Your task to perform on an android device: Open Google Maps and go to "Timeline" Image 0: 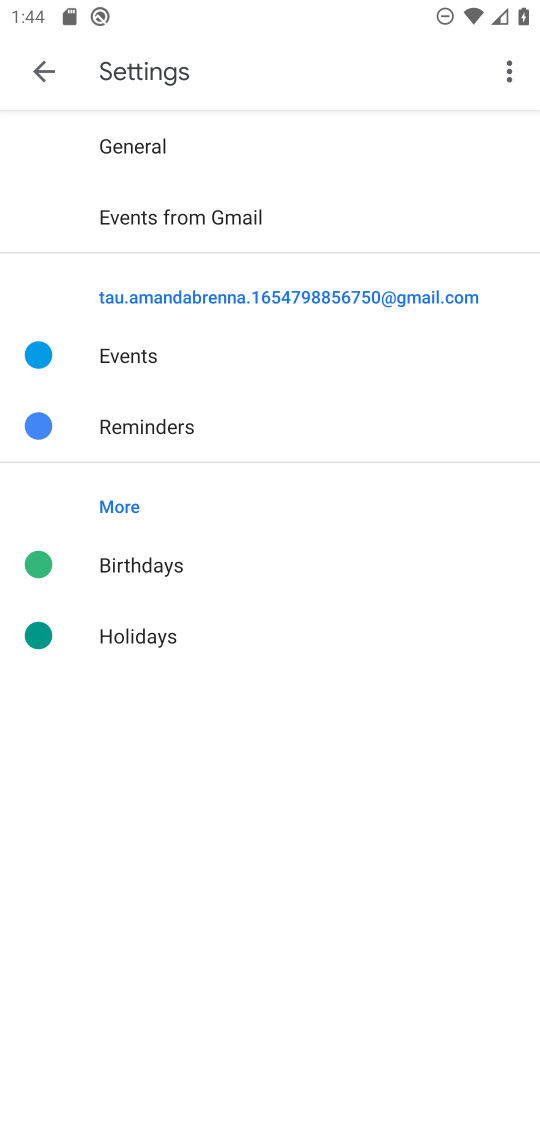
Step 0: press home button
Your task to perform on an android device: Open Google Maps and go to "Timeline" Image 1: 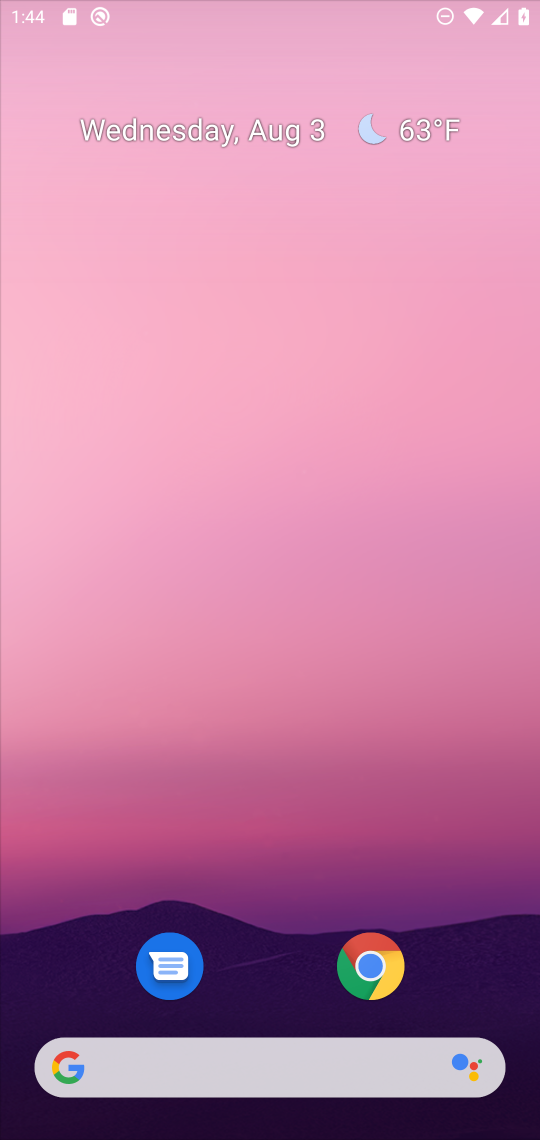
Step 1: press home button
Your task to perform on an android device: Open Google Maps and go to "Timeline" Image 2: 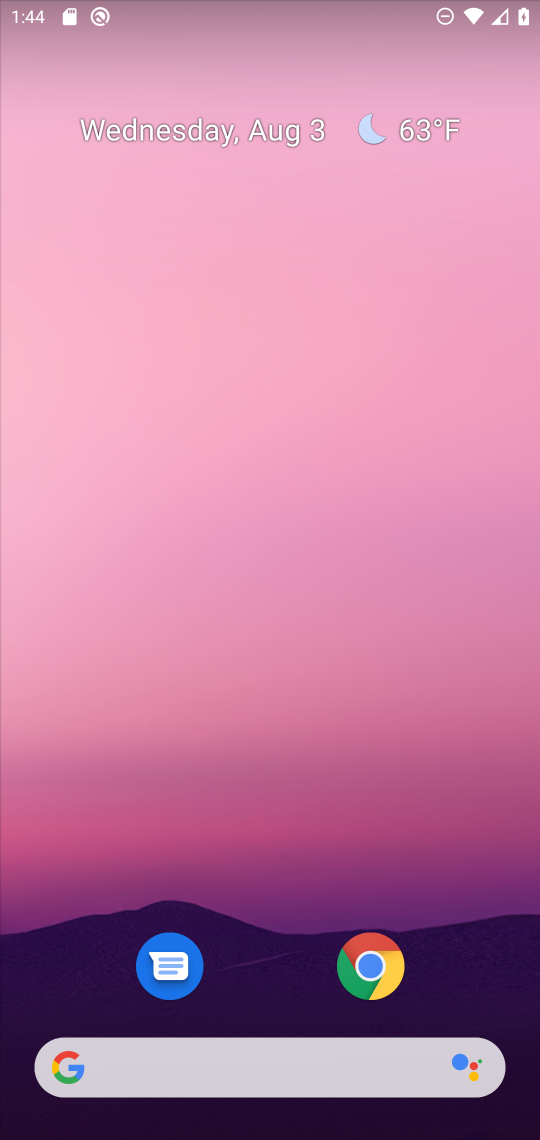
Step 2: drag from (220, 952) to (220, 346)
Your task to perform on an android device: Open Google Maps and go to "Timeline" Image 3: 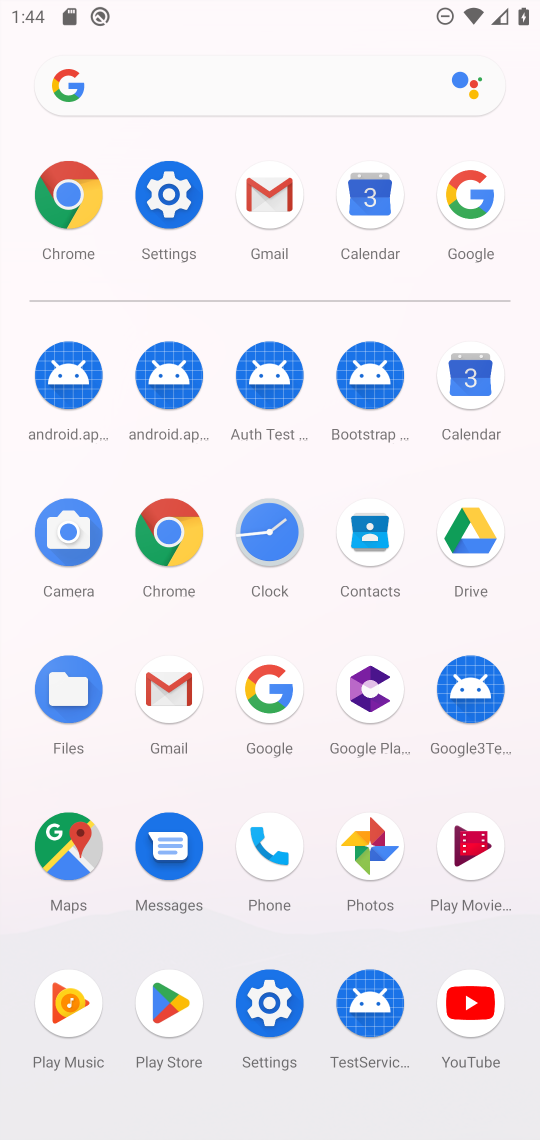
Step 3: click (67, 824)
Your task to perform on an android device: Open Google Maps and go to "Timeline" Image 4: 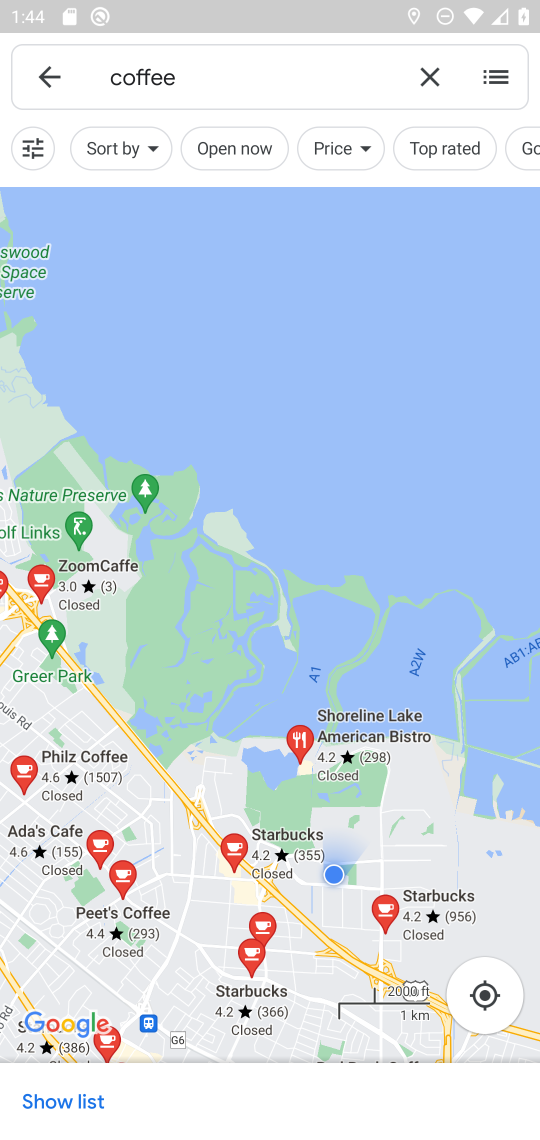
Step 4: click (53, 70)
Your task to perform on an android device: Open Google Maps and go to "Timeline" Image 5: 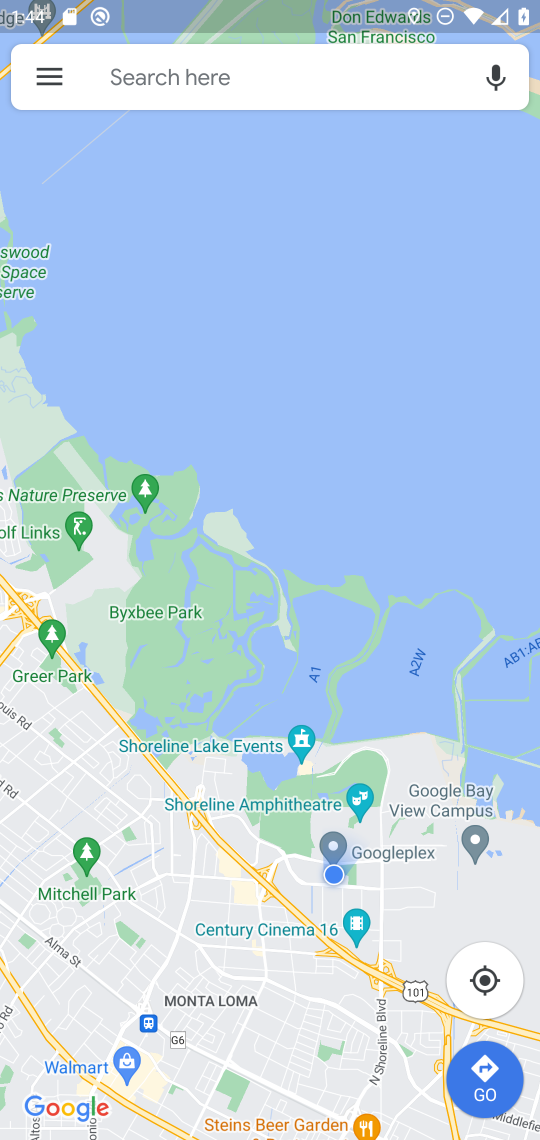
Step 5: click (53, 70)
Your task to perform on an android device: Open Google Maps and go to "Timeline" Image 6: 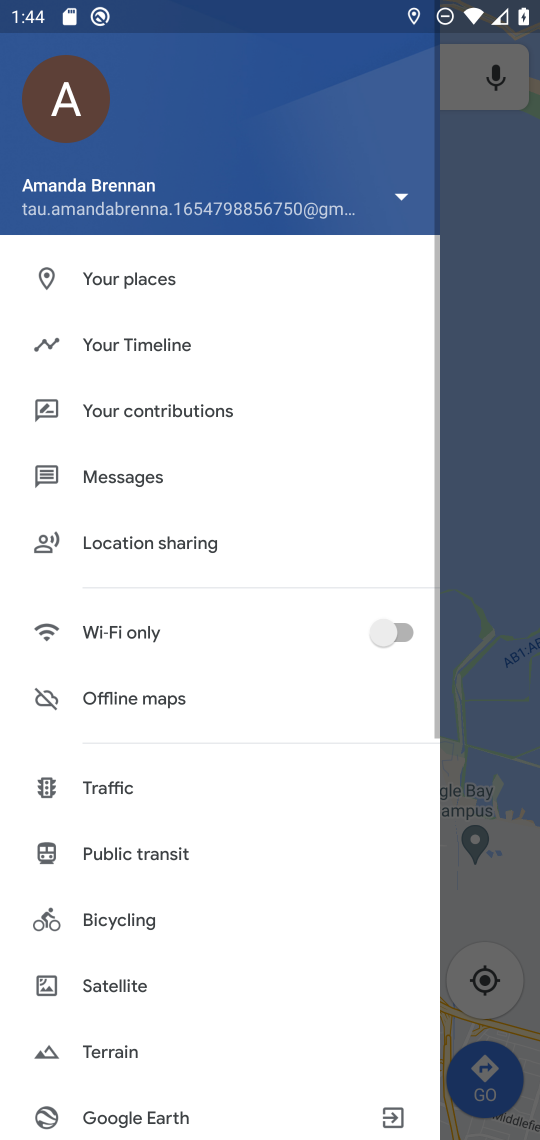
Step 6: click (100, 355)
Your task to perform on an android device: Open Google Maps and go to "Timeline" Image 7: 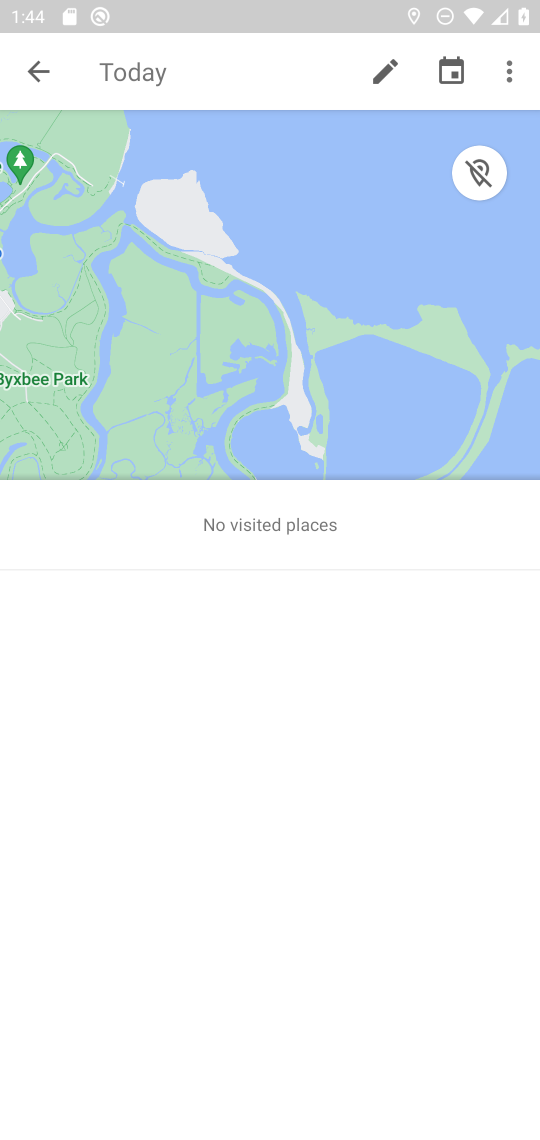
Step 7: task complete